Your task to perform on an android device: toggle improve location accuracy Image 0: 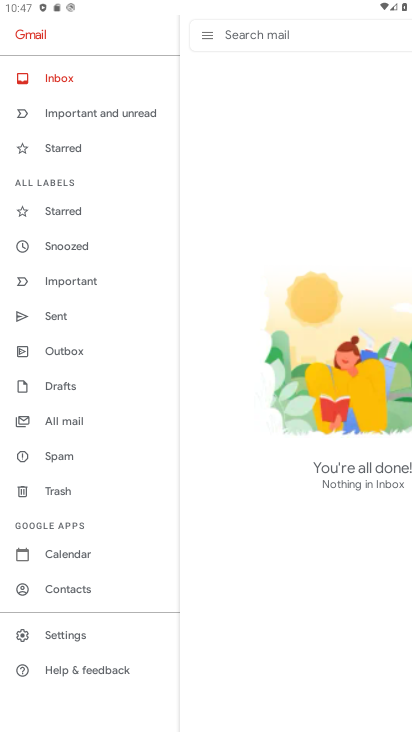
Step 0: task complete